Your task to perform on an android device: Clear all items from cart on target.com. Search for "razer thresher" on target.com, select the first entry, add it to the cart, then select checkout. Image 0: 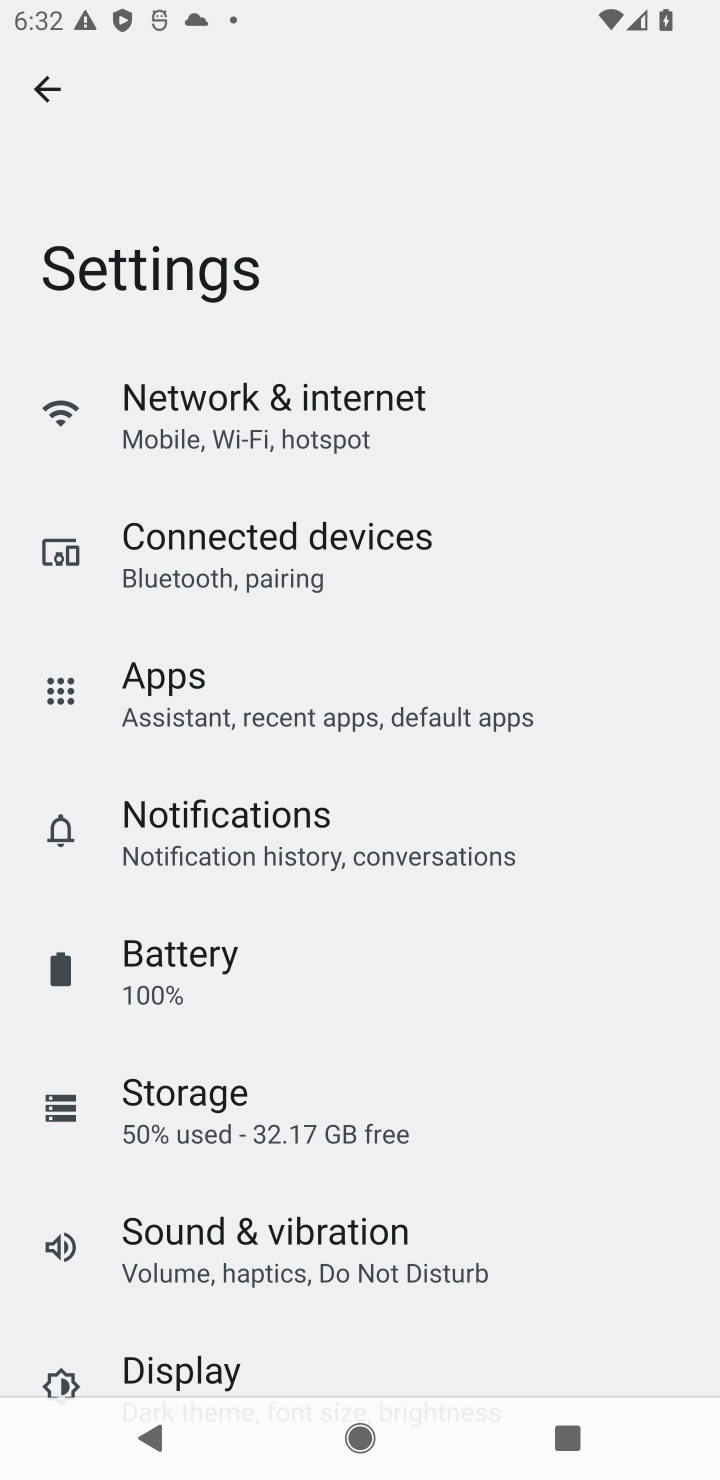
Step 0: press home button
Your task to perform on an android device: Clear all items from cart on target.com. Search for "razer thresher" on target.com, select the first entry, add it to the cart, then select checkout. Image 1: 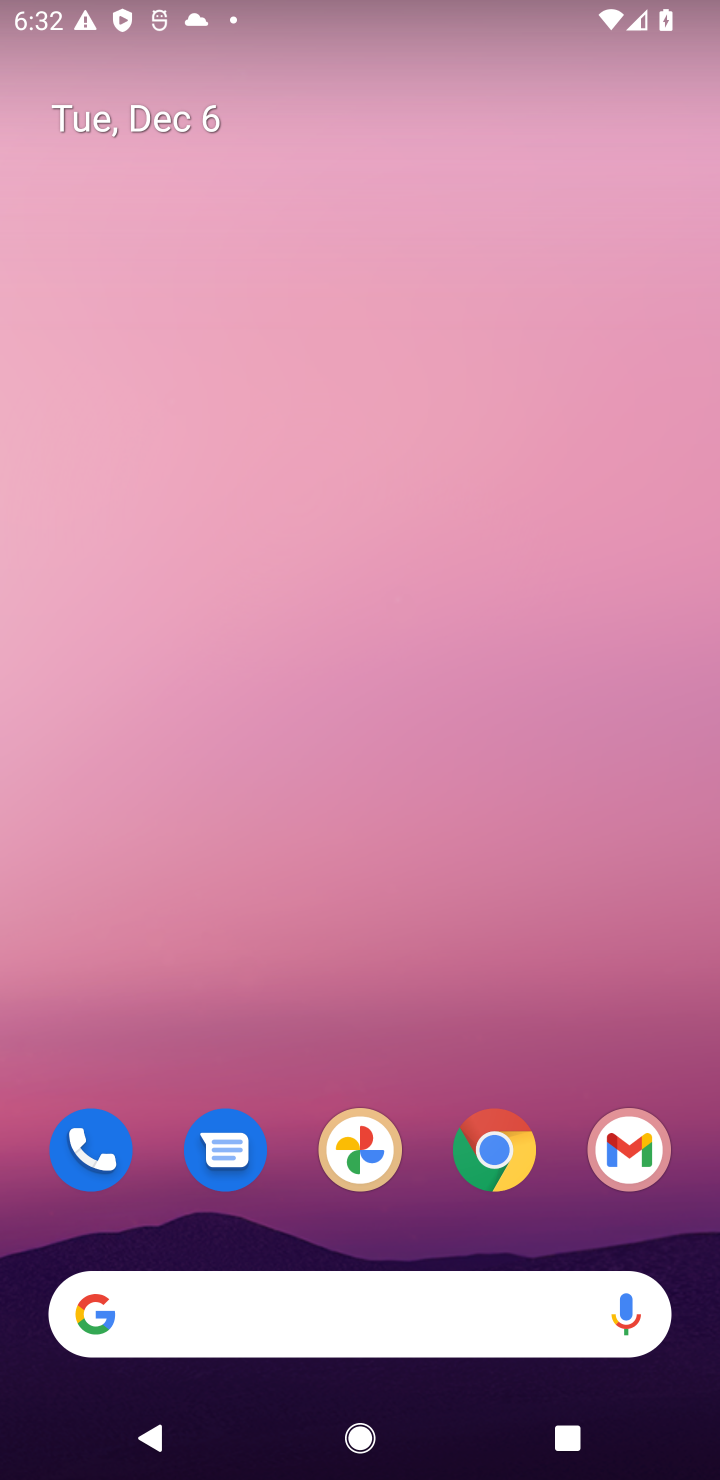
Step 1: click (502, 1148)
Your task to perform on an android device: Clear all items from cart on target.com. Search for "razer thresher" on target.com, select the first entry, add it to the cart, then select checkout. Image 2: 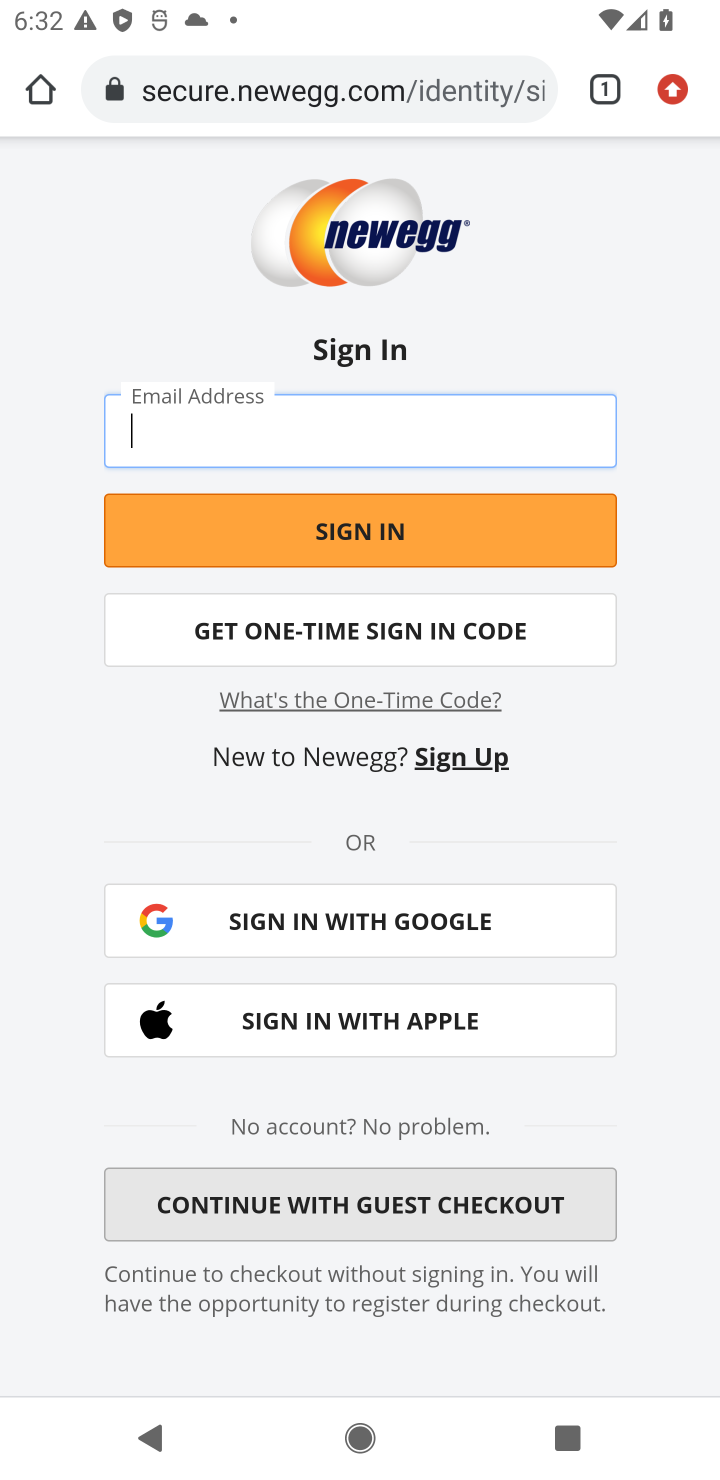
Step 2: click (285, 101)
Your task to perform on an android device: Clear all items from cart on target.com. Search for "razer thresher" on target.com, select the first entry, add it to the cart, then select checkout. Image 3: 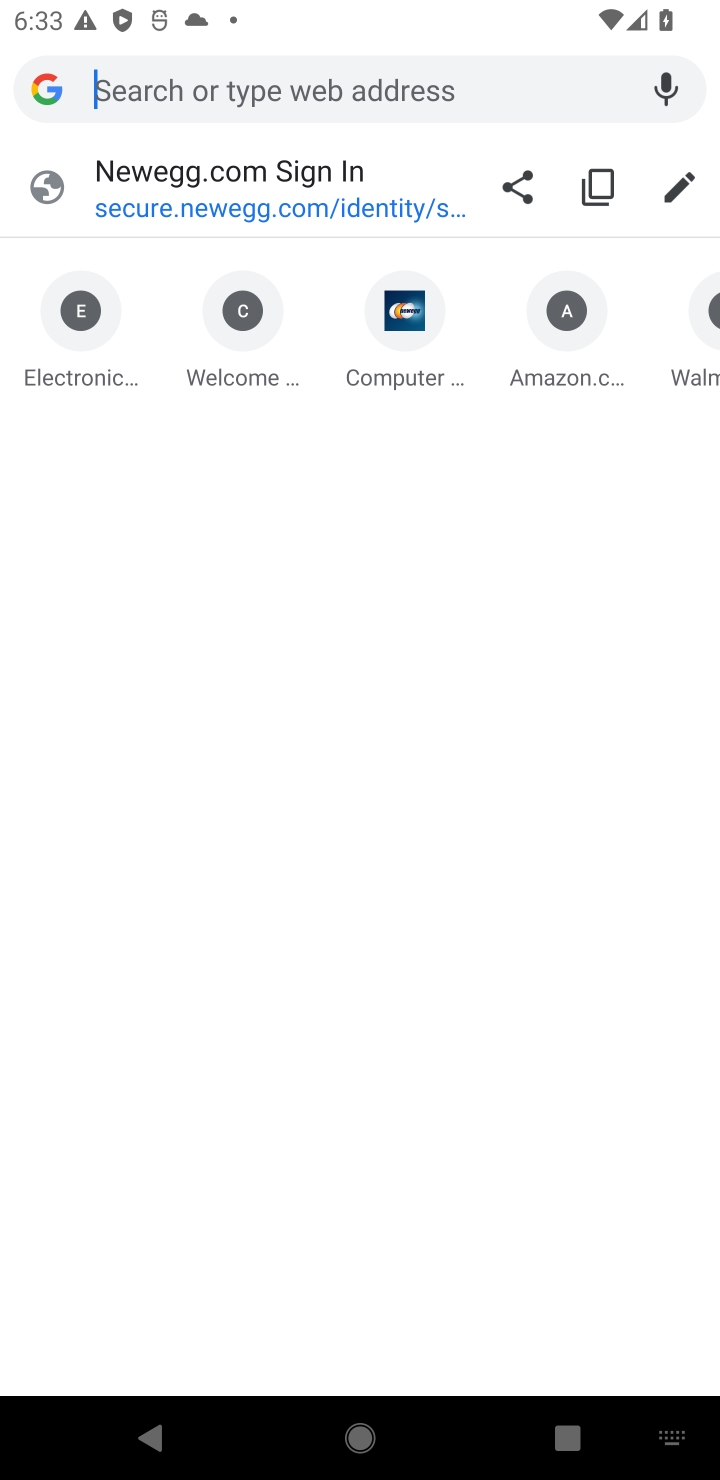
Step 3: type "target.com"
Your task to perform on an android device: Clear all items from cart on target.com. Search for "razer thresher" on target.com, select the first entry, add it to the cart, then select checkout. Image 4: 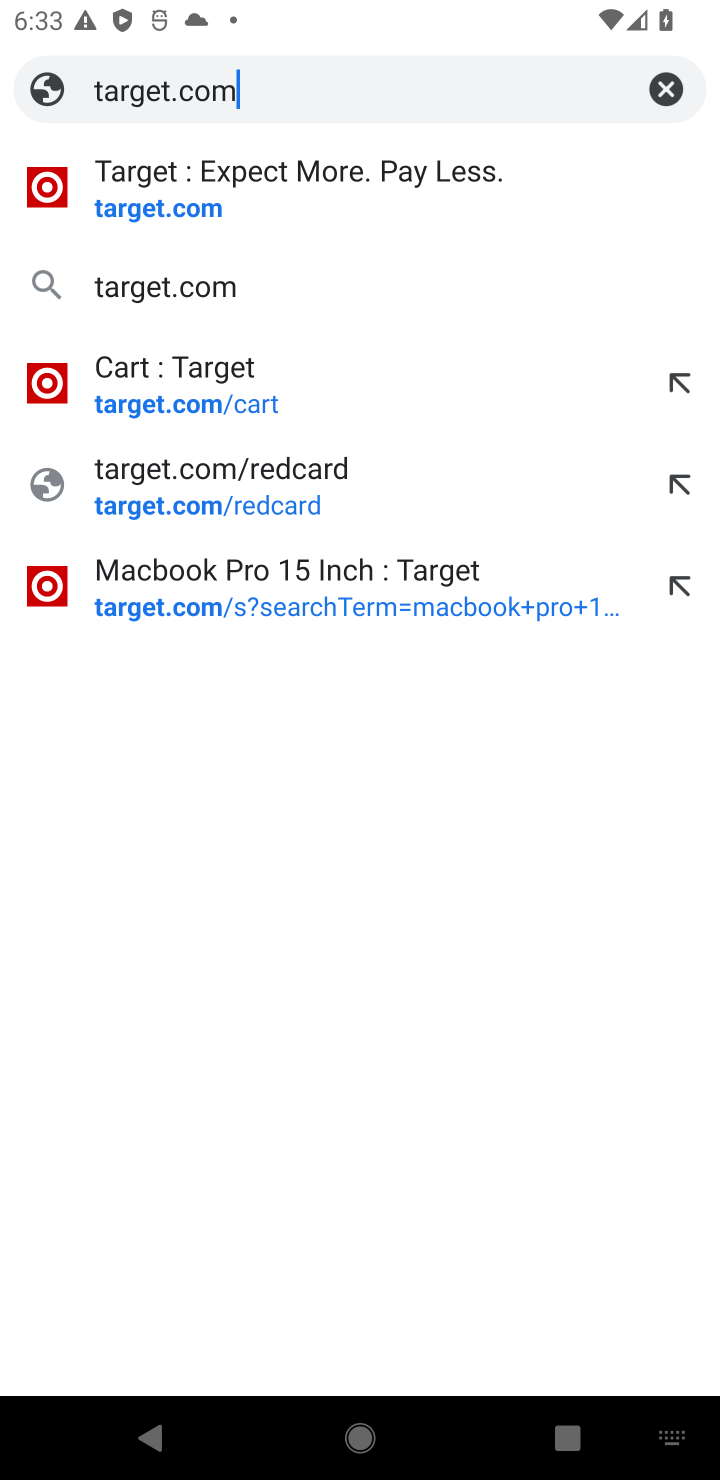
Step 4: click (119, 214)
Your task to perform on an android device: Clear all items from cart on target.com. Search for "razer thresher" on target.com, select the first entry, add it to the cart, then select checkout. Image 5: 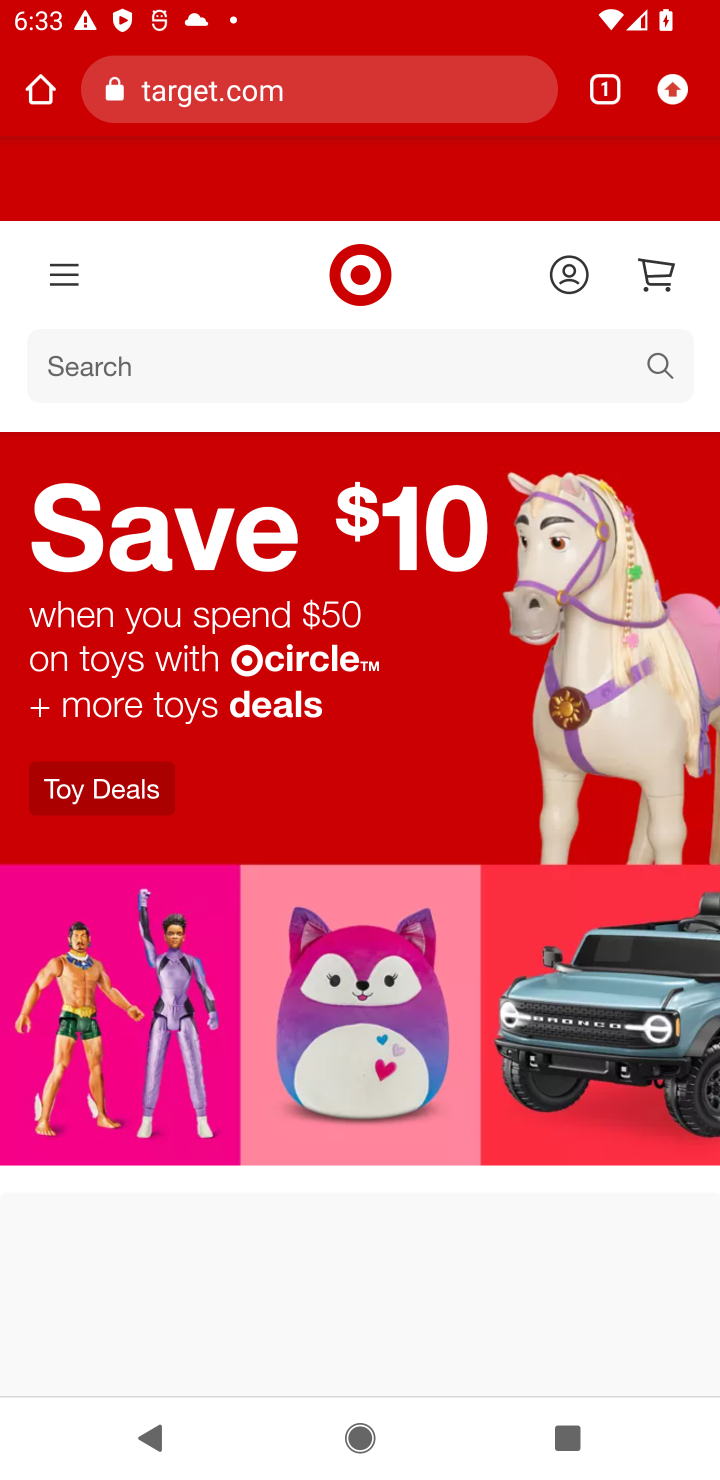
Step 5: click (654, 288)
Your task to perform on an android device: Clear all items from cart on target.com. Search for "razer thresher" on target.com, select the first entry, add it to the cart, then select checkout. Image 6: 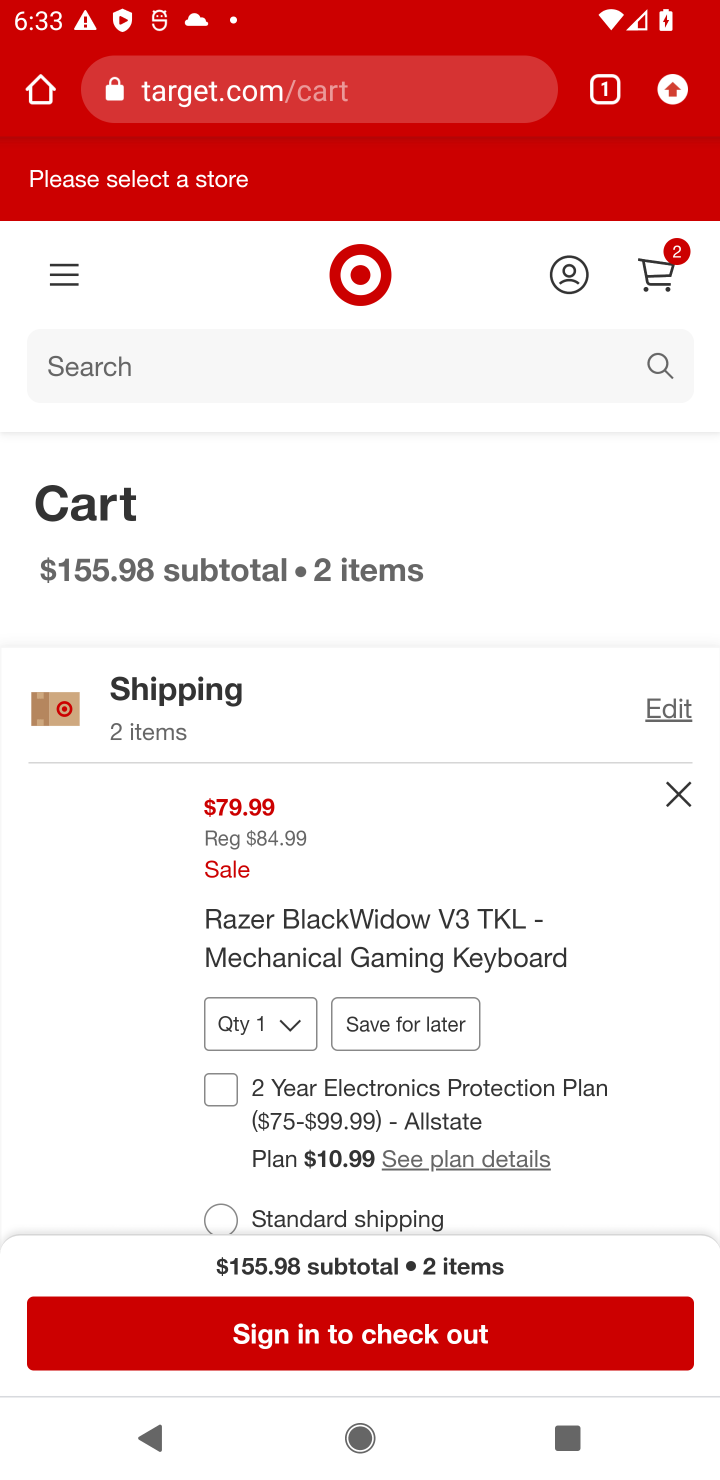
Step 6: click (675, 782)
Your task to perform on an android device: Clear all items from cart on target.com. Search for "razer thresher" on target.com, select the first entry, add it to the cart, then select checkout. Image 7: 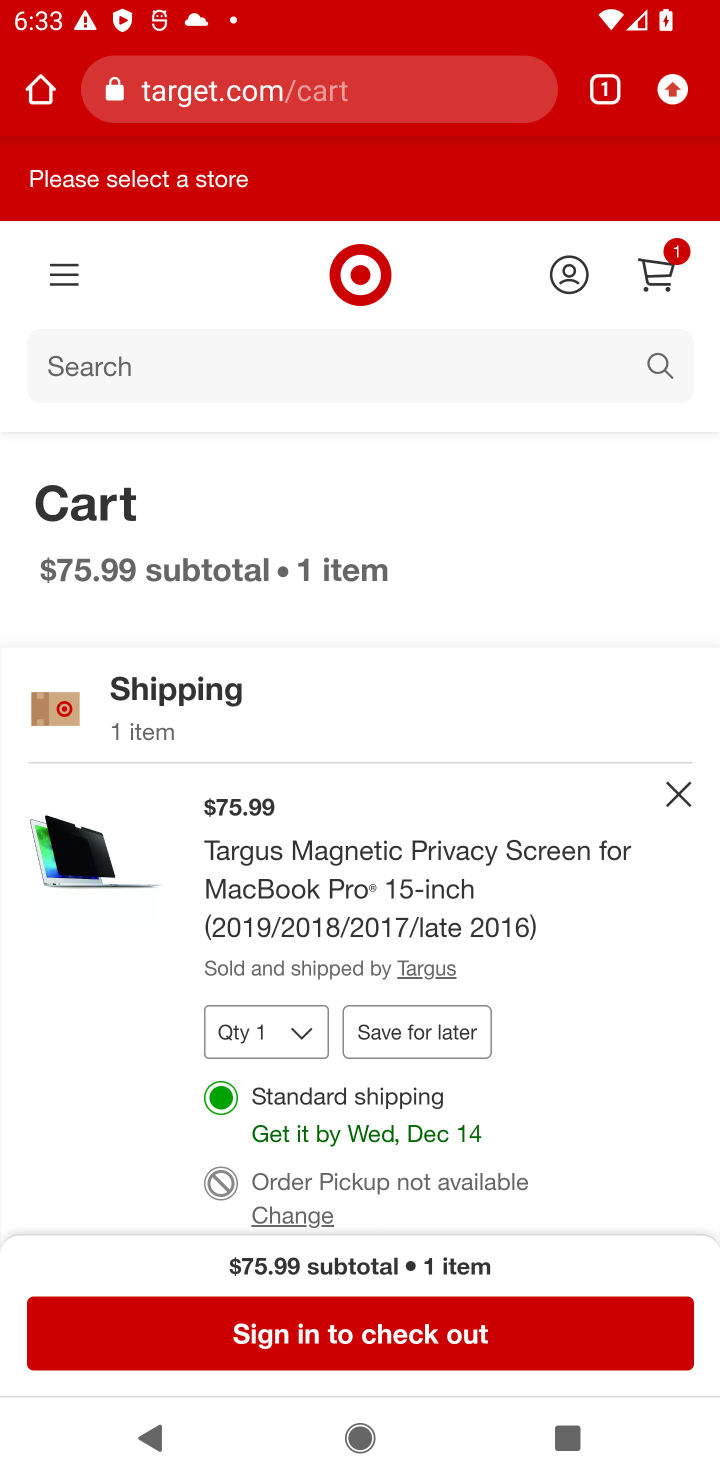
Step 7: click (681, 800)
Your task to perform on an android device: Clear all items from cart on target.com. Search for "razer thresher" on target.com, select the first entry, add it to the cart, then select checkout. Image 8: 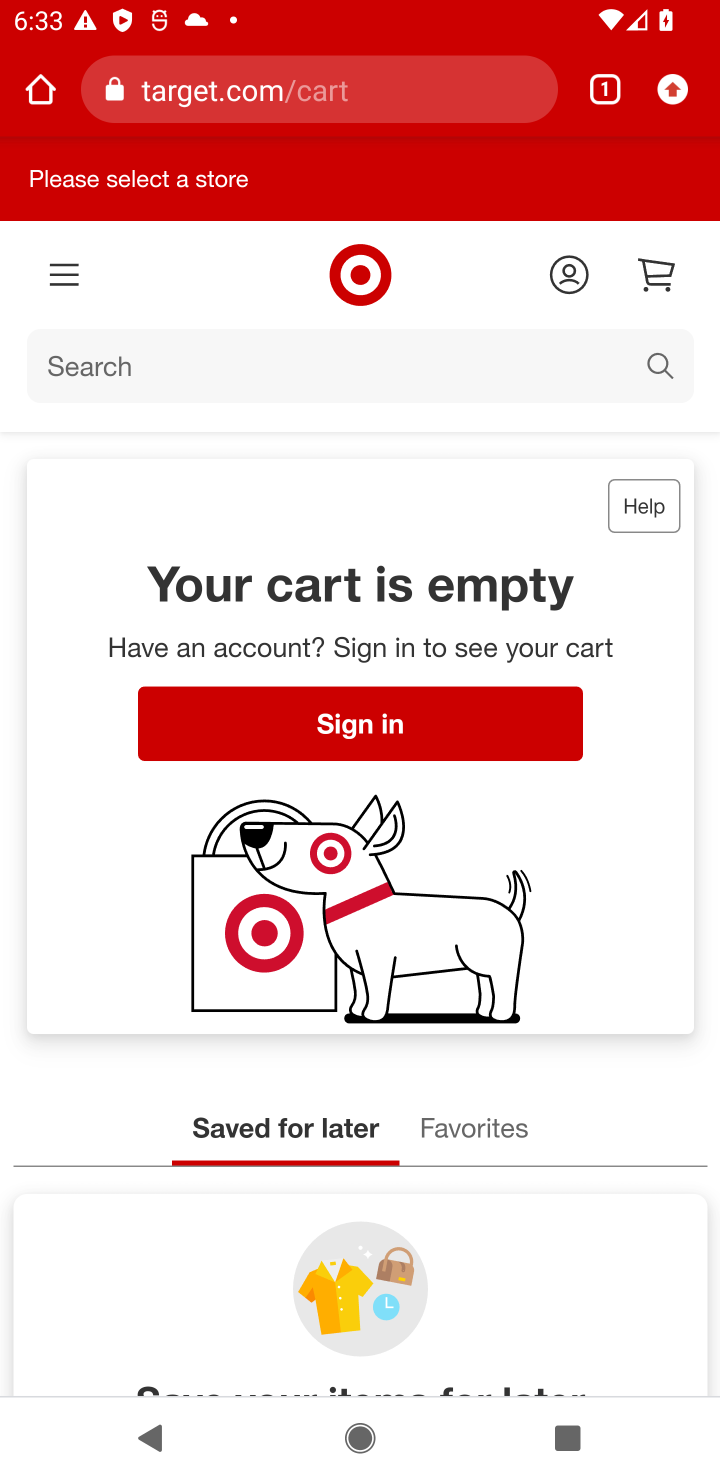
Step 8: click (97, 366)
Your task to perform on an android device: Clear all items from cart on target.com. Search for "razer thresher" on target.com, select the first entry, add it to the cart, then select checkout. Image 9: 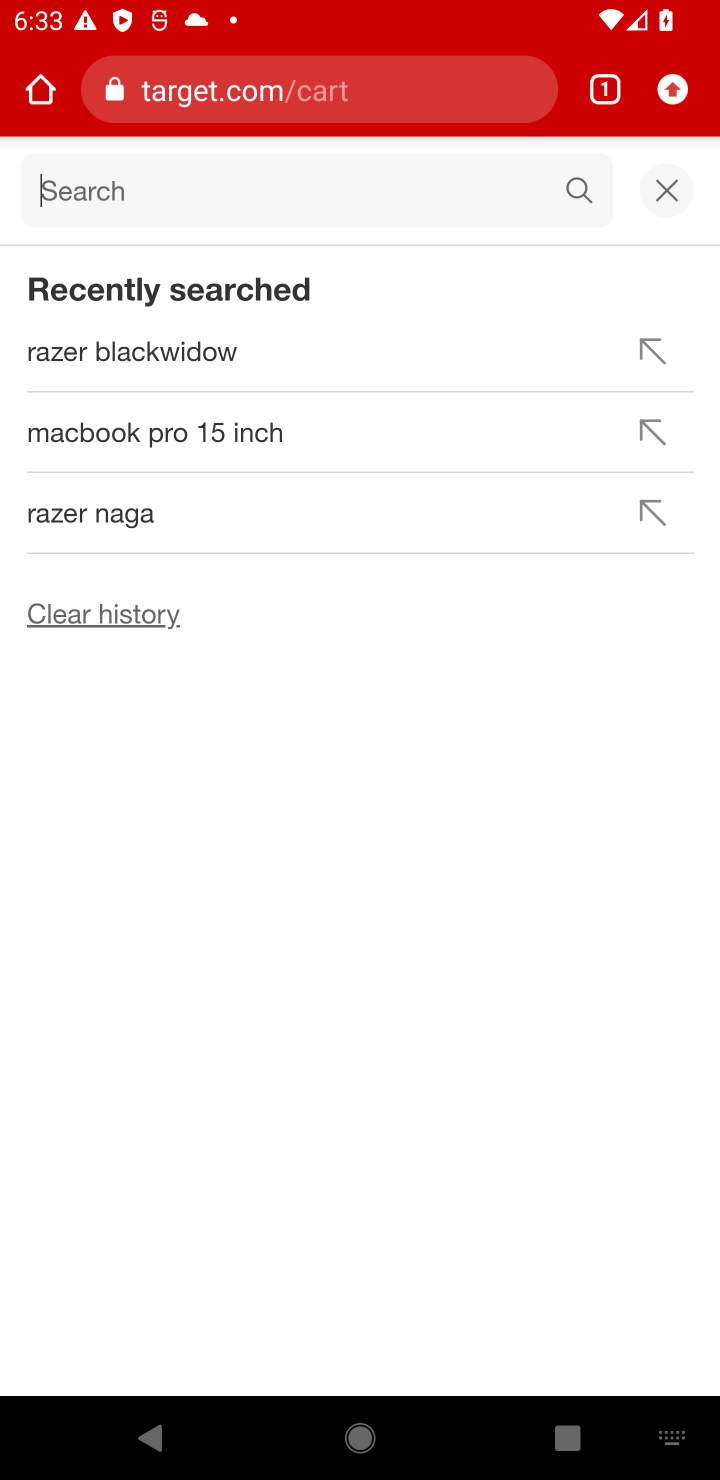
Step 9: type "razer thresher"
Your task to perform on an android device: Clear all items from cart on target.com. Search for "razer thresher" on target.com, select the first entry, add it to the cart, then select checkout. Image 10: 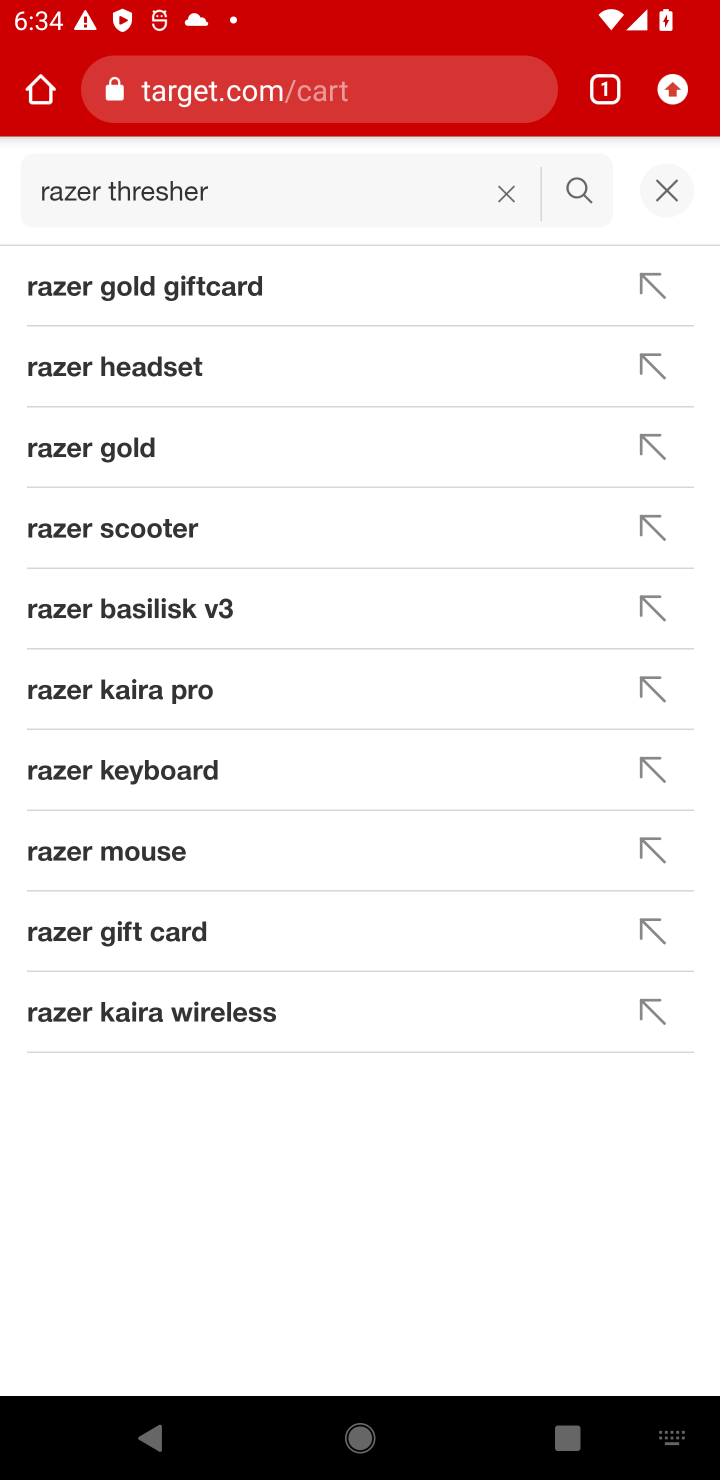
Step 10: click (573, 186)
Your task to perform on an android device: Clear all items from cart on target.com. Search for "razer thresher" on target.com, select the first entry, add it to the cart, then select checkout. Image 11: 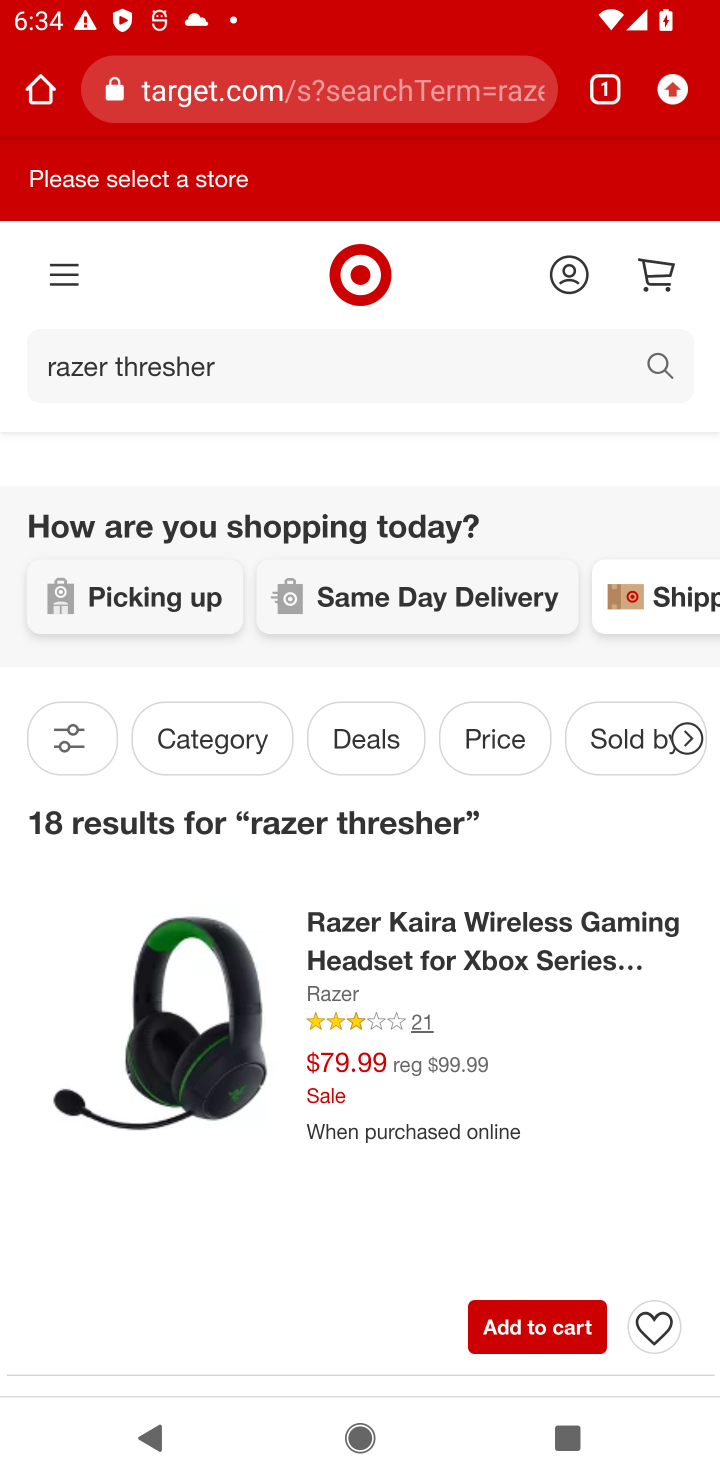
Step 11: task complete